Your task to perform on an android device: Search for Italian restaurants on Maps Image 0: 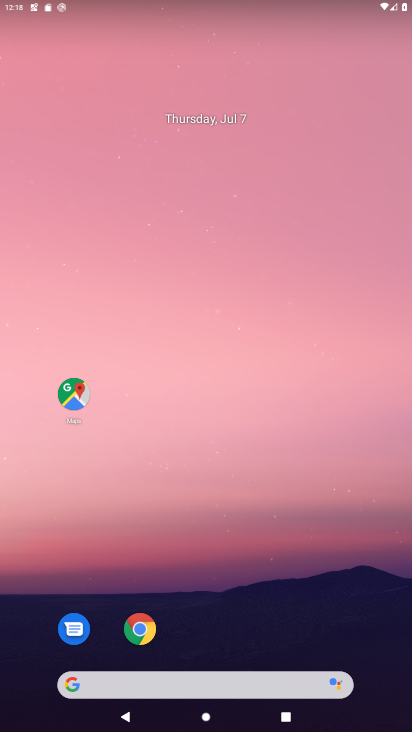
Step 0: drag from (258, 600) to (180, 140)
Your task to perform on an android device: Search for Italian restaurants on Maps Image 1: 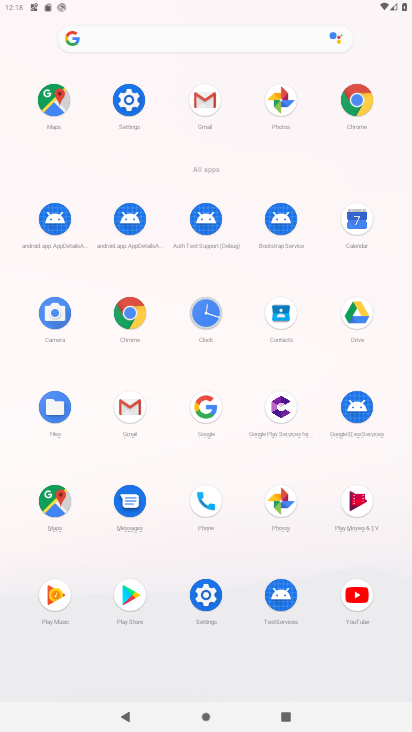
Step 1: click (57, 106)
Your task to perform on an android device: Search for Italian restaurants on Maps Image 2: 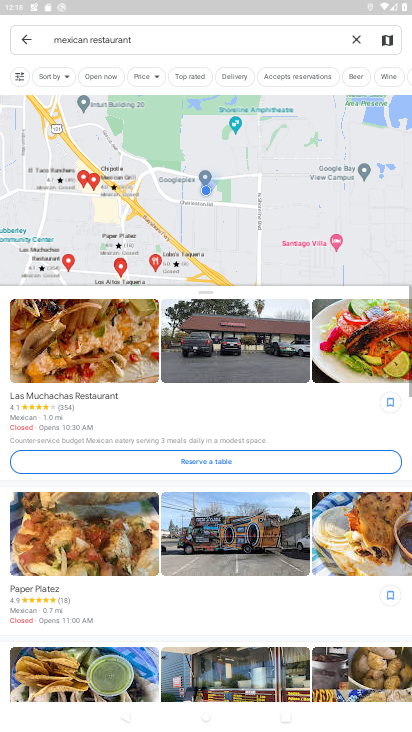
Step 2: click (308, 37)
Your task to perform on an android device: Search for Italian restaurants on Maps Image 3: 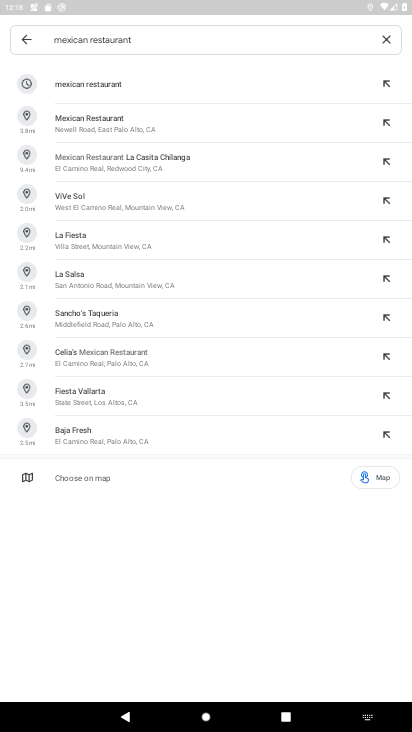
Step 3: click (392, 38)
Your task to perform on an android device: Search for Italian restaurants on Maps Image 4: 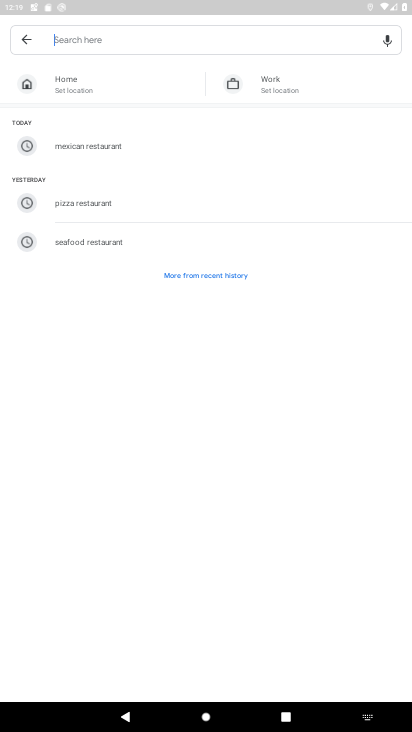
Step 4: type "Italian restaurants"
Your task to perform on an android device: Search for Italian restaurants on Maps Image 5: 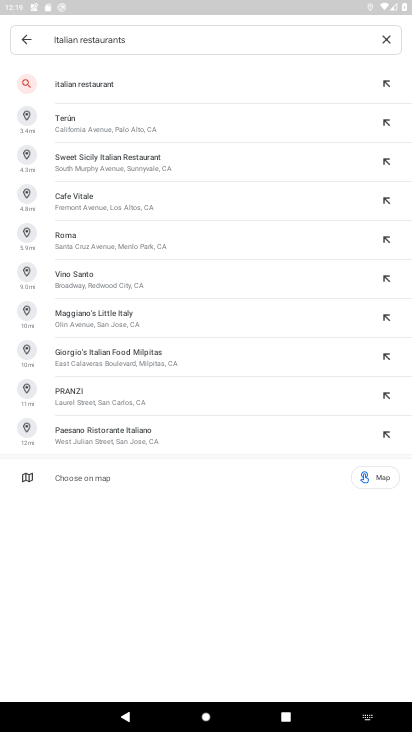
Step 5: click (215, 91)
Your task to perform on an android device: Search for Italian restaurants on Maps Image 6: 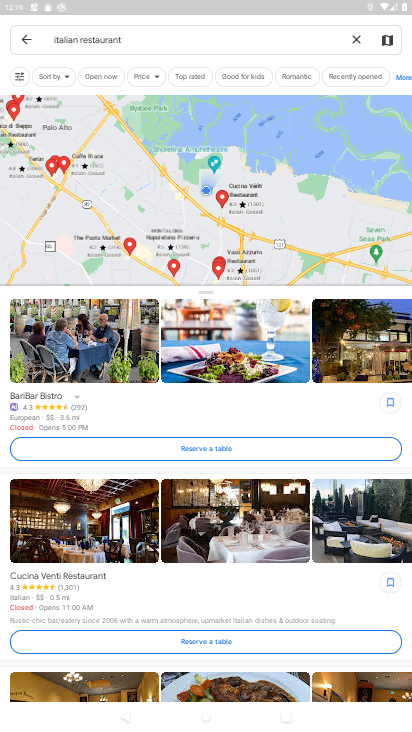
Step 6: task complete